Your task to perform on an android device: Open the map Image 0: 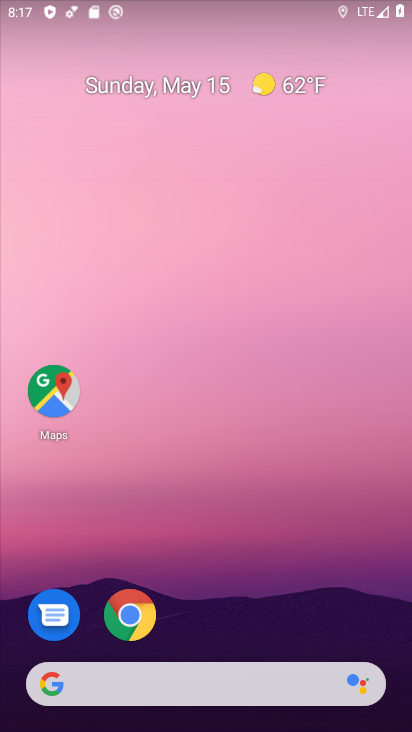
Step 0: click (58, 408)
Your task to perform on an android device: Open the map Image 1: 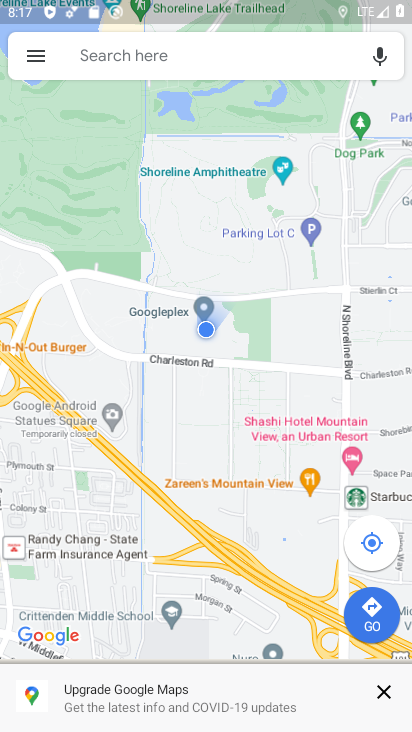
Step 1: task complete